Your task to perform on an android device: Clear the cart on bestbuy.com. Add bose soundlink to the cart on bestbuy.com Image 0: 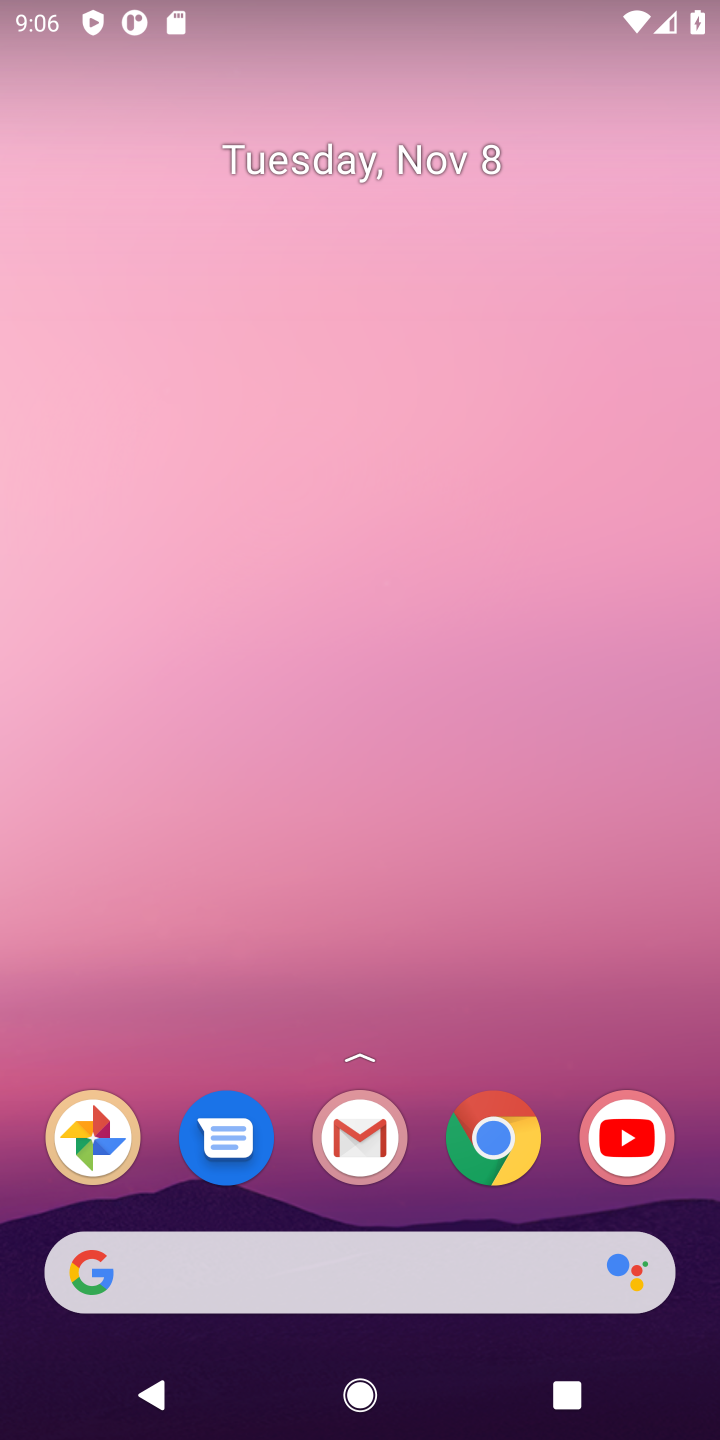
Step 0: click (526, 1138)
Your task to perform on an android device: Clear the cart on bestbuy.com. Add bose soundlink to the cart on bestbuy.com Image 1: 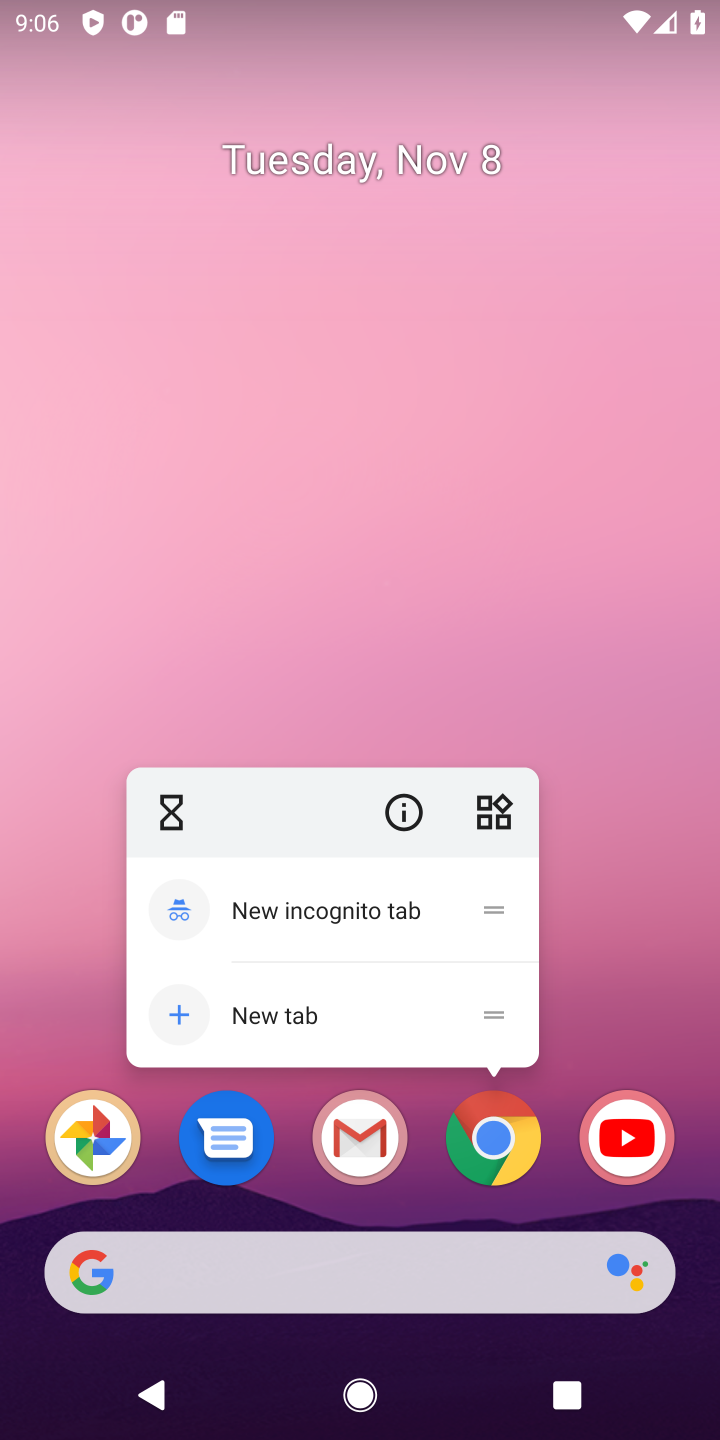
Step 1: click (488, 1151)
Your task to perform on an android device: Clear the cart on bestbuy.com. Add bose soundlink to the cart on bestbuy.com Image 2: 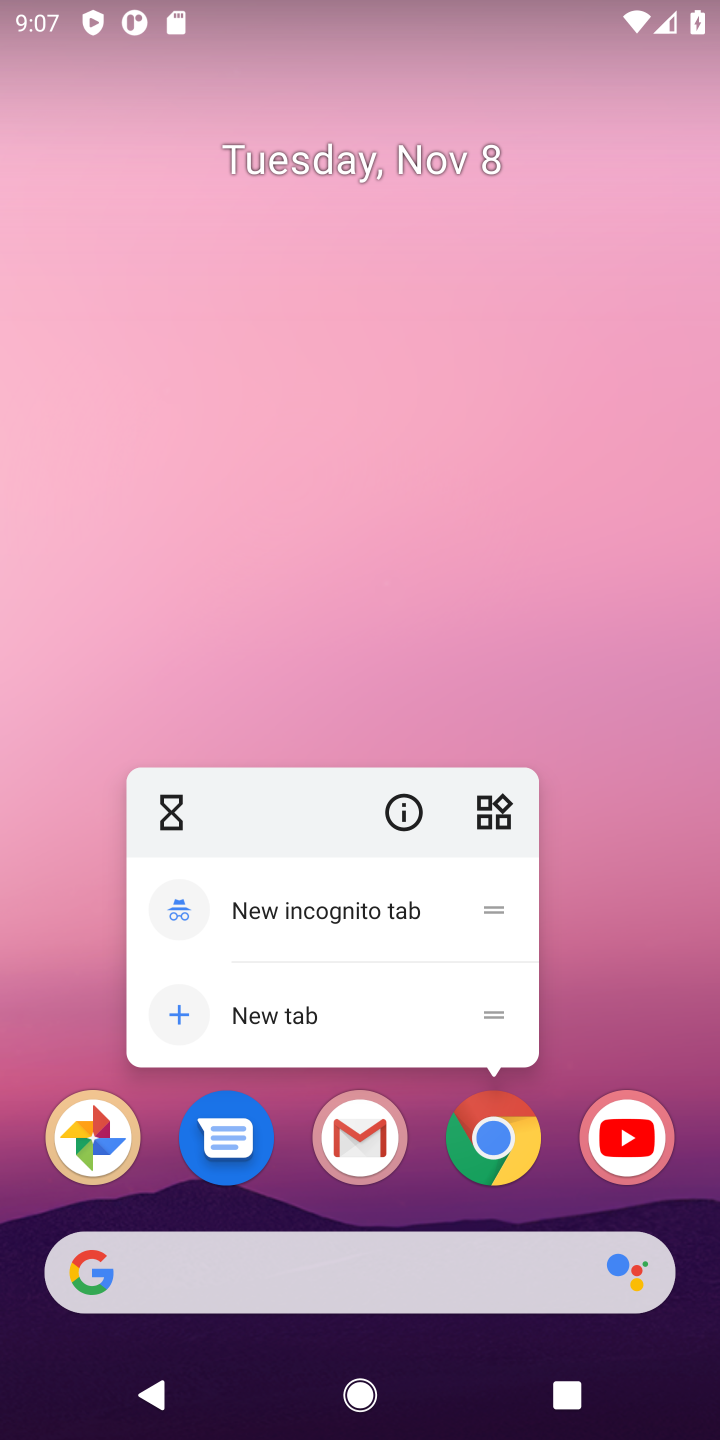
Step 2: click (500, 1126)
Your task to perform on an android device: Clear the cart on bestbuy.com. Add bose soundlink to the cart on bestbuy.com Image 3: 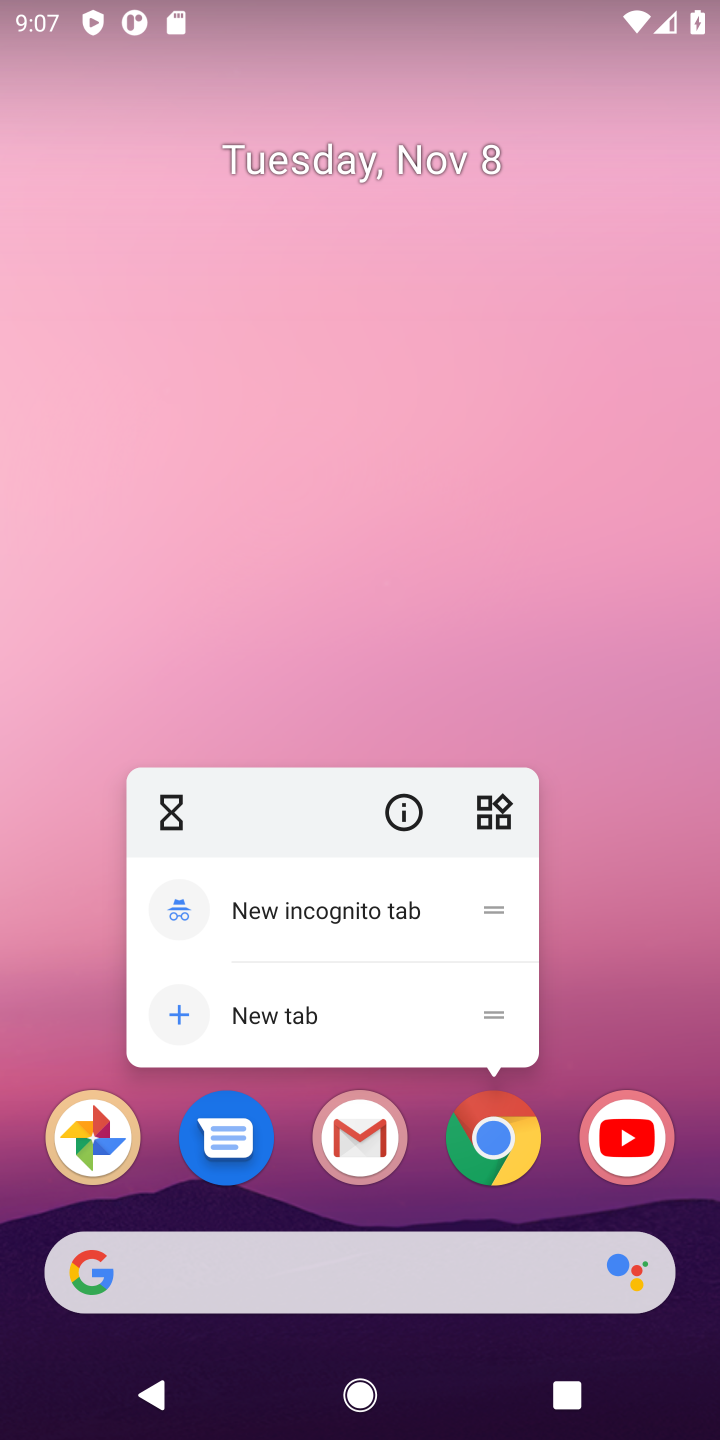
Step 3: click (500, 1126)
Your task to perform on an android device: Clear the cart on bestbuy.com. Add bose soundlink to the cart on bestbuy.com Image 4: 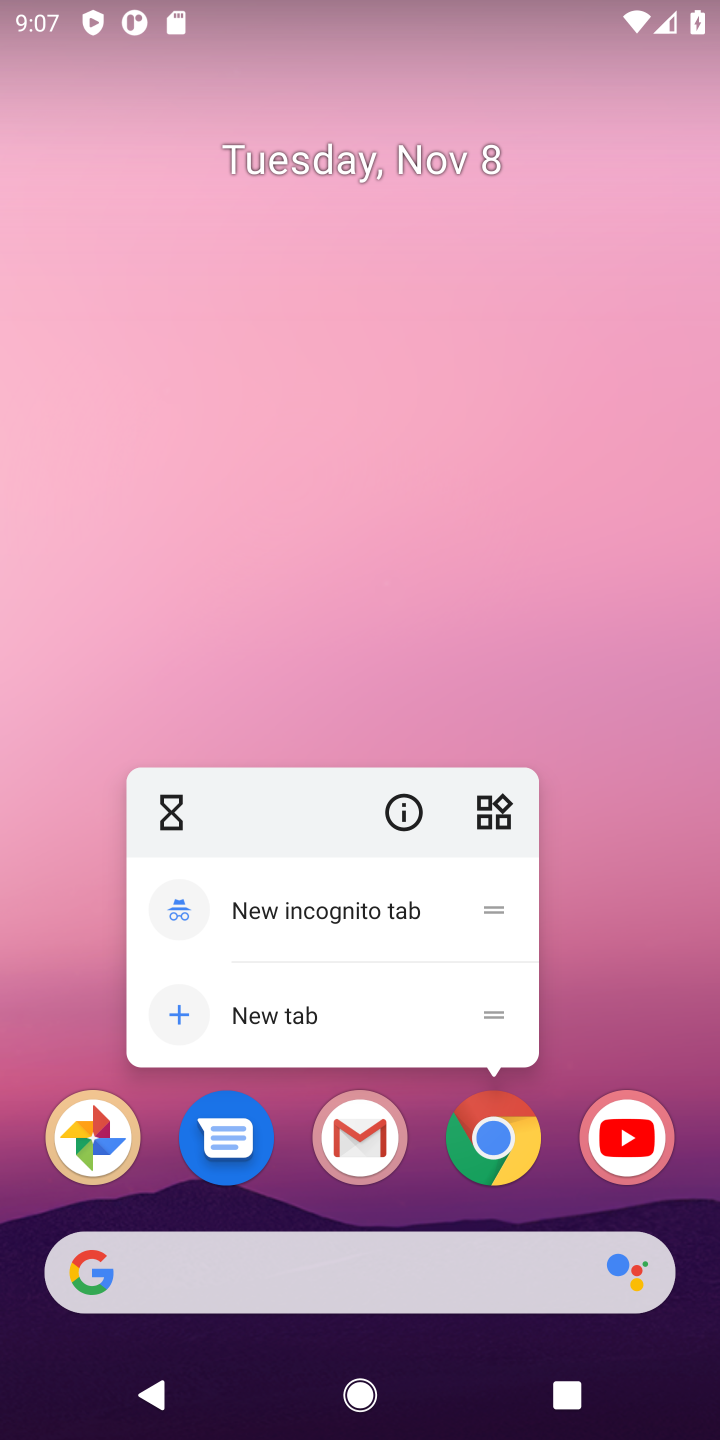
Step 4: click (500, 1144)
Your task to perform on an android device: Clear the cart on bestbuy.com. Add bose soundlink to the cart on bestbuy.com Image 5: 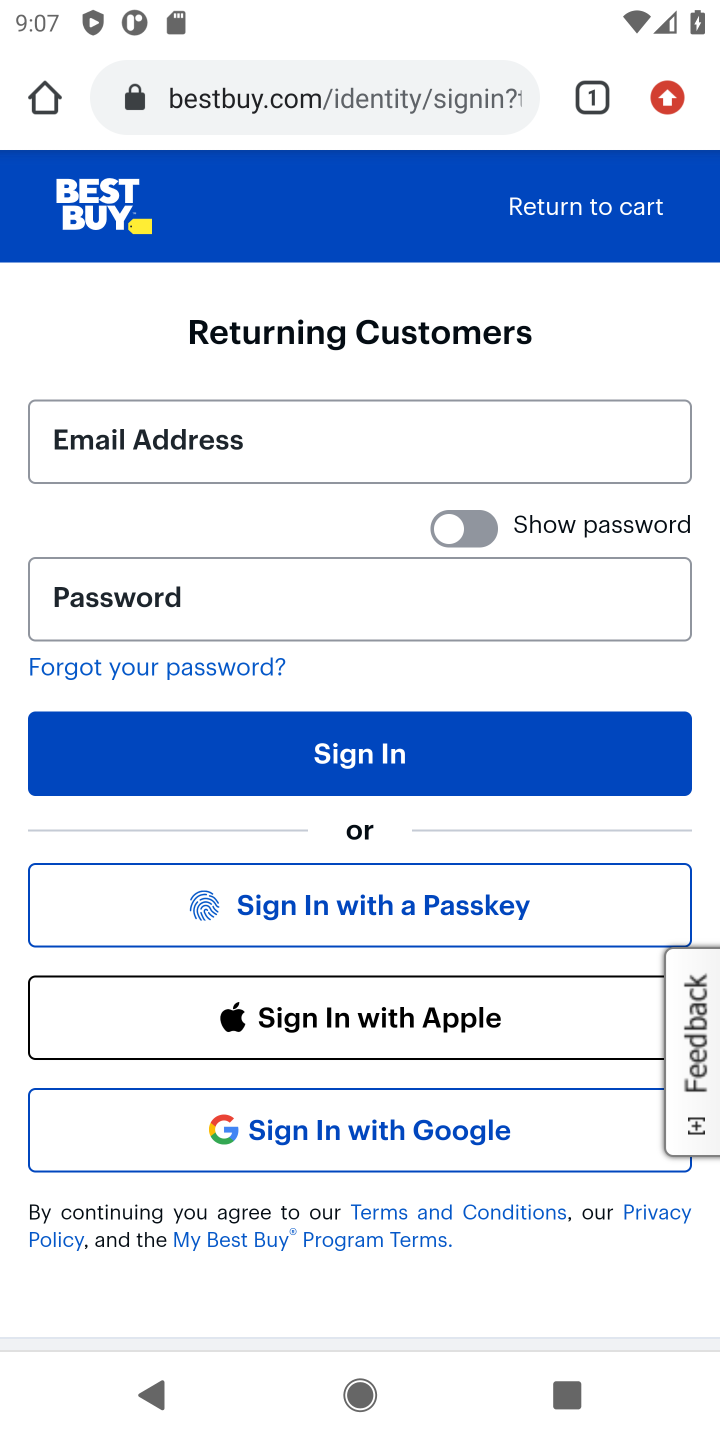
Step 5: press back button
Your task to perform on an android device: Clear the cart on bestbuy.com. Add bose soundlink to the cart on bestbuy.com Image 6: 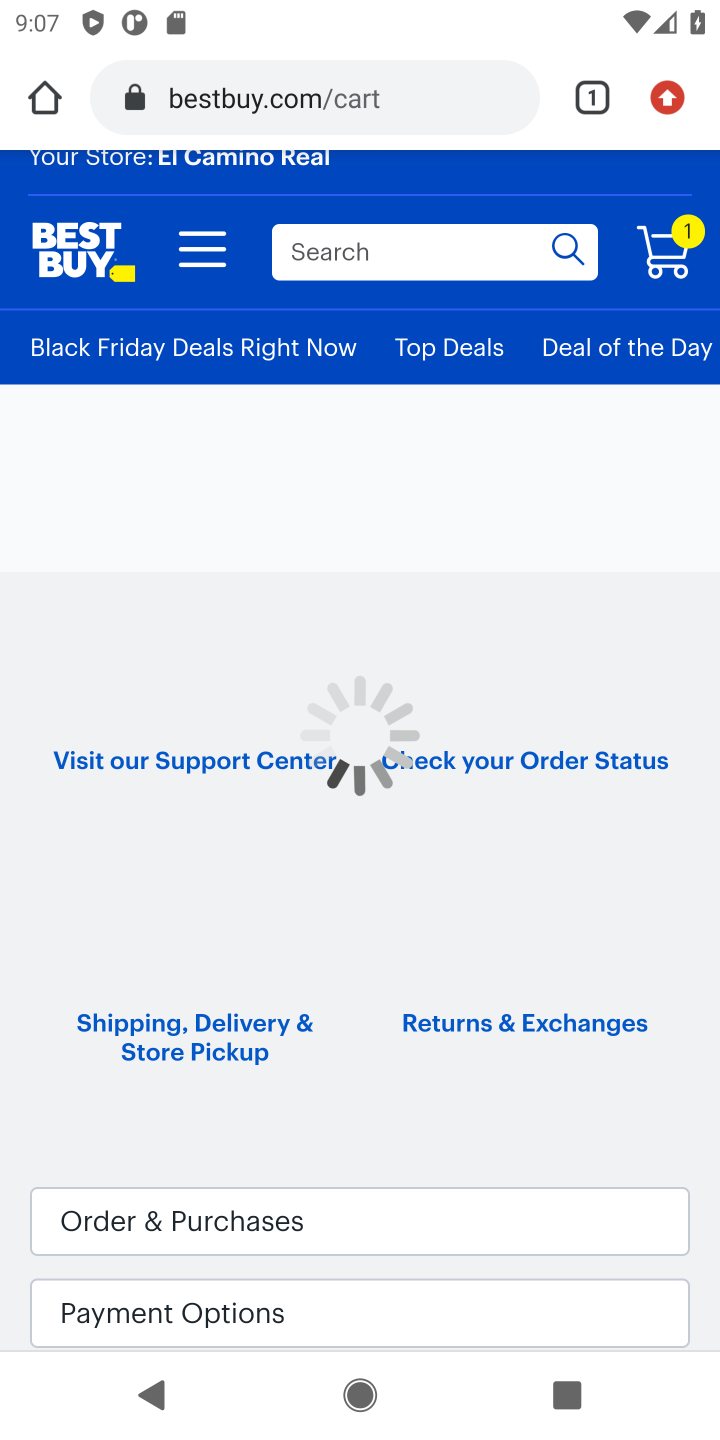
Step 6: click (394, 262)
Your task to perform on an android device: Clear the cart on bestbuy.com. Add bose soundlink to the cart on bestbuy.com Image 7: 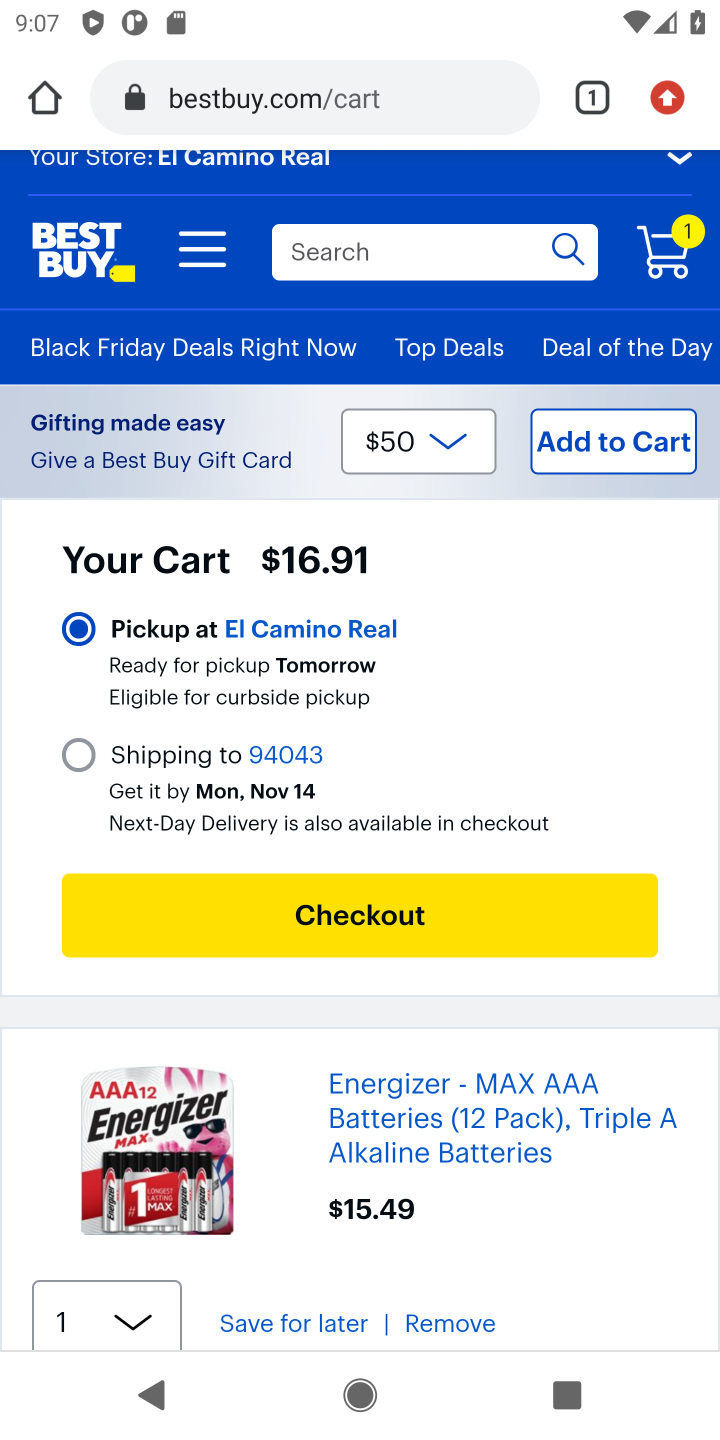
Step 7: click (358, 233)
Your task to perform on an android device: Clear the cart on bestbuy.com. Add bose soundlink to the cart on bestbuy.com Image 8: 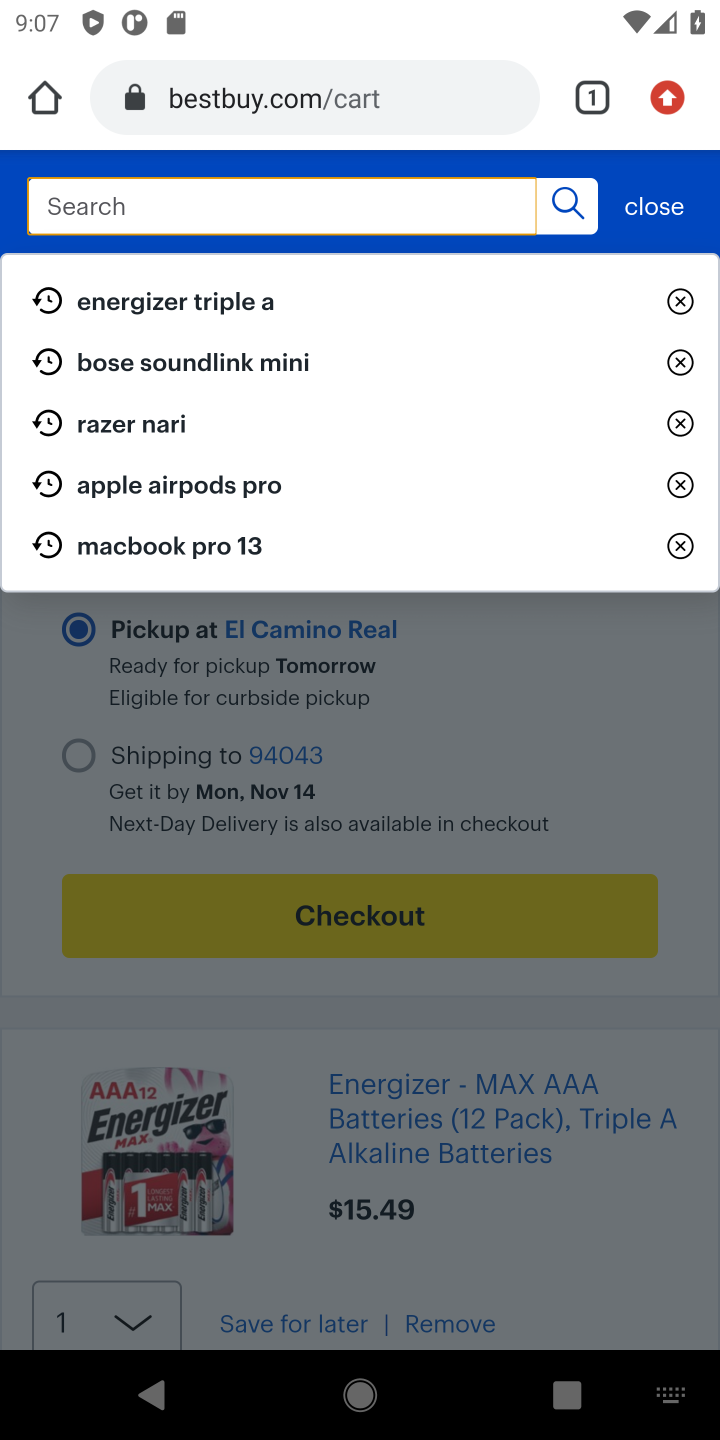
Step 8: type "bose soundlink"
Your task to perform on an android device: Clear the cart on bestbuy.com. Add bose soundlink to the cart on bestbuy.com Image 9: 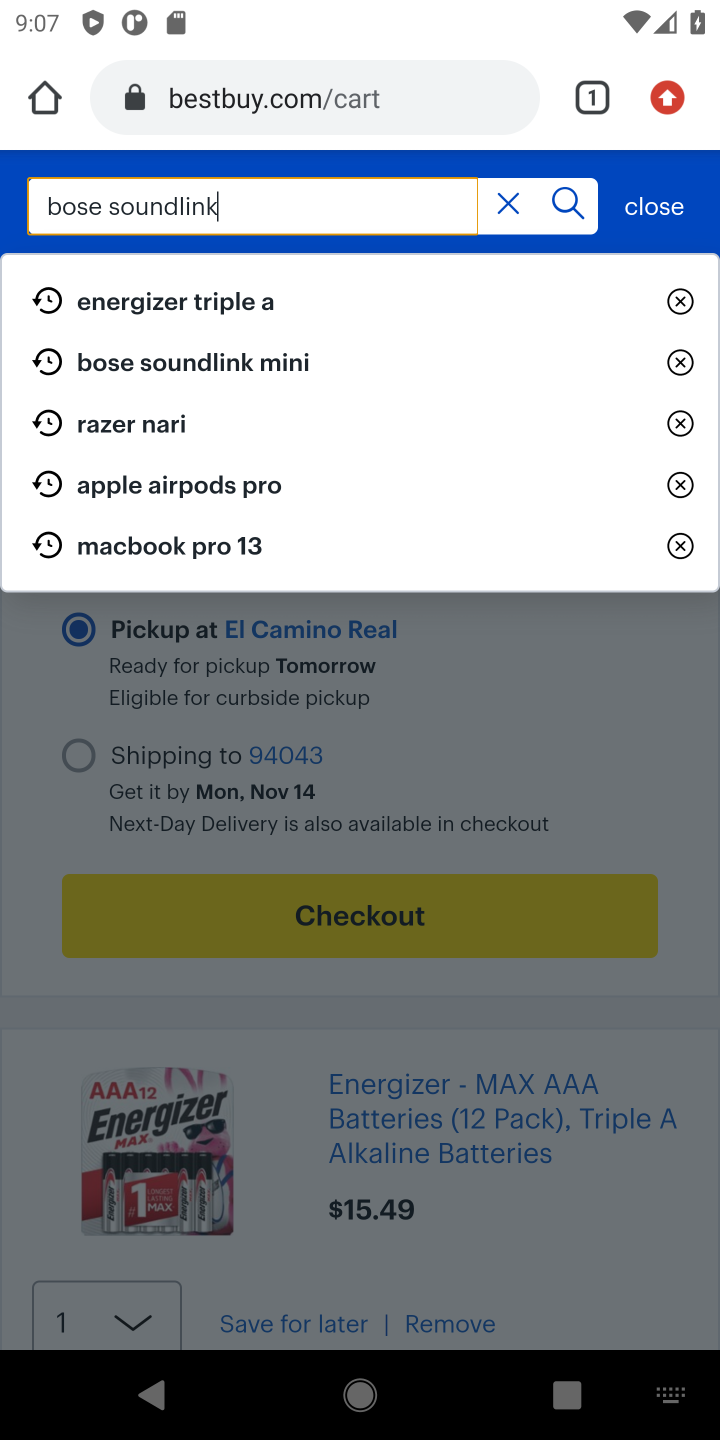
Step 9: press enter
Your task to perform on an android device: Clear the cart on bestbuy.com. Add bose soundlink to the cart on bestbuy.com Image 10: 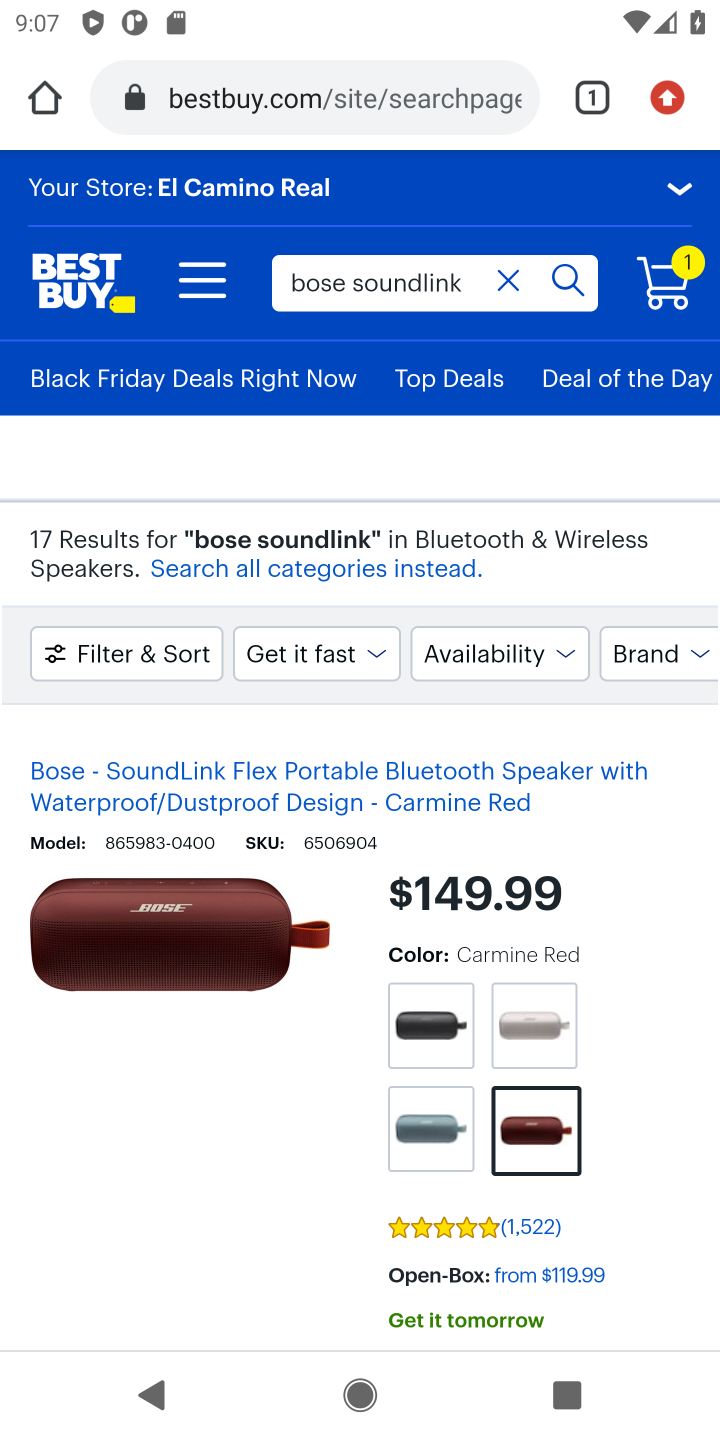
Step 10: drag from (332, 1210) to (576, 582)
Your task to perform on an android device: Clear the cart on bestbuy.com. Add bose soundlink to the cart on bestbuy.com Image 11: 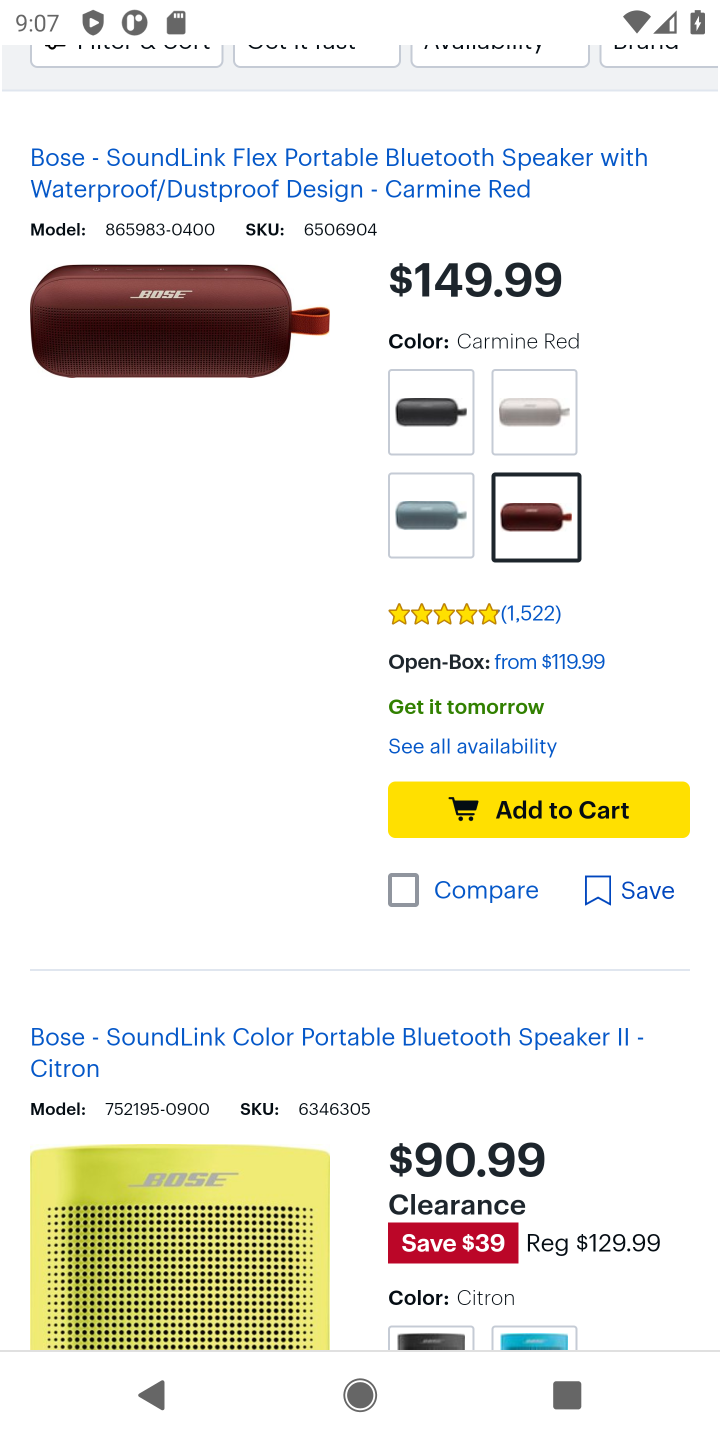
Step 11: click (586, 790)
Your task to perform on an android device: Clear the cart on bestbuy.com. Add bose soundlink to the cart on bestbuy.com Image 12: 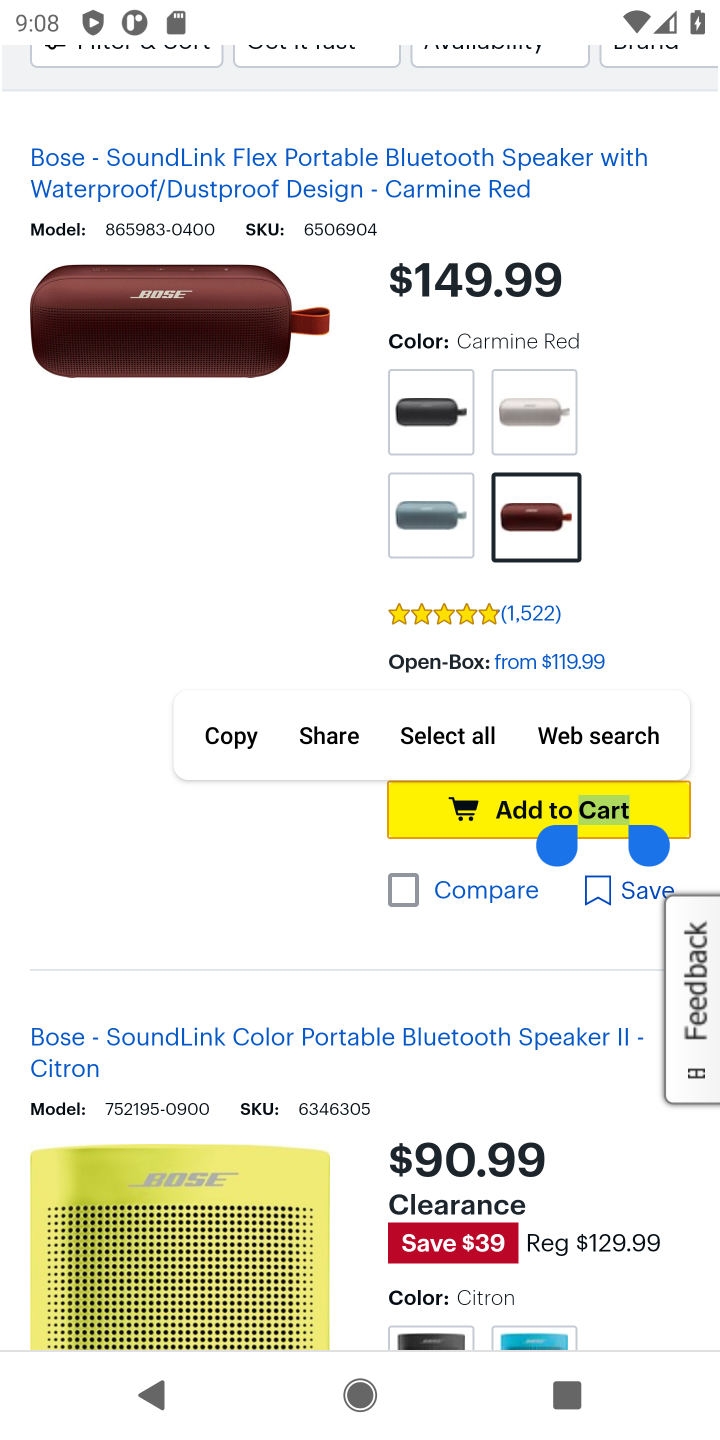
Step 12: click (545, 801)
Your task to perform on an android device: Clear the cart on bestbuy.com. Add bose soundlink to the cart on bestbuy.com Image 13: 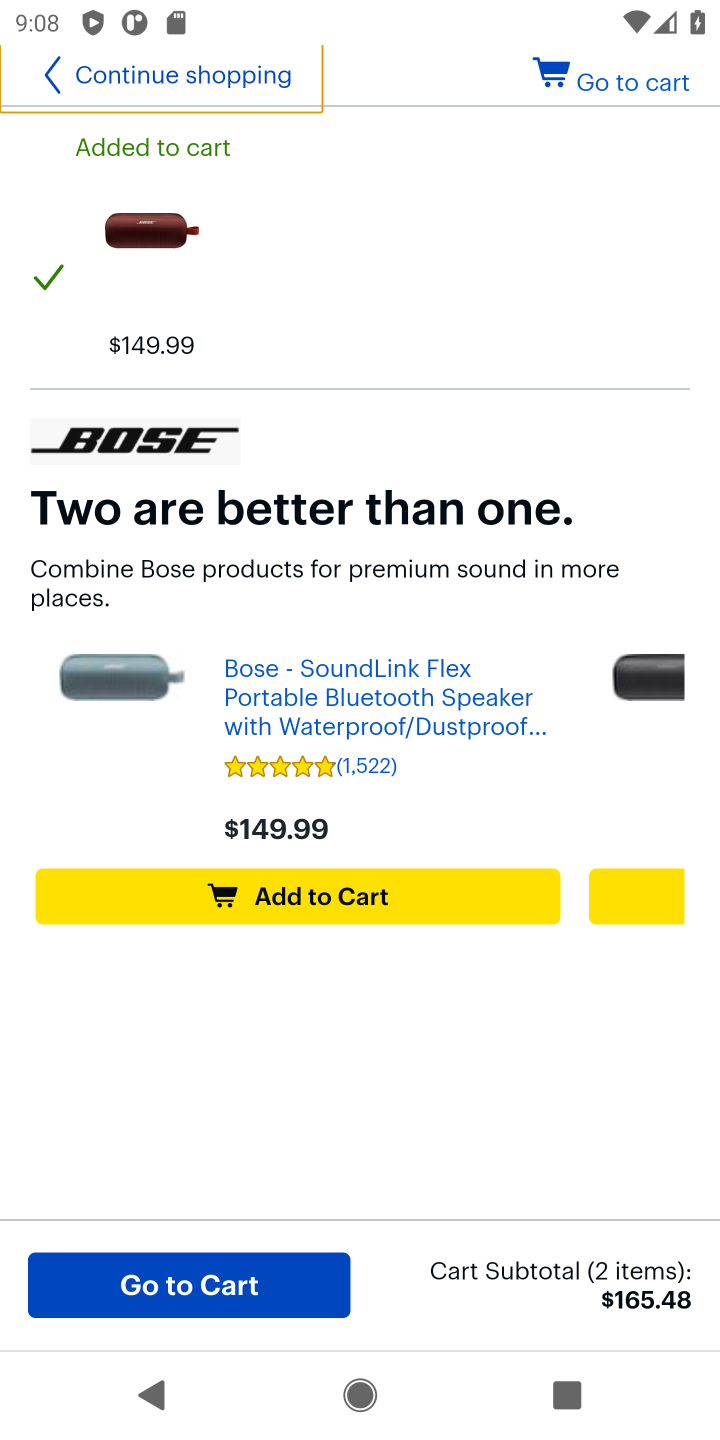
Step 13: click (652, 80)
Your task to perform on an android device: Clear the cart on bestbuy.com. Add bose soundlink to the cart on bestbuy.com Image 14: 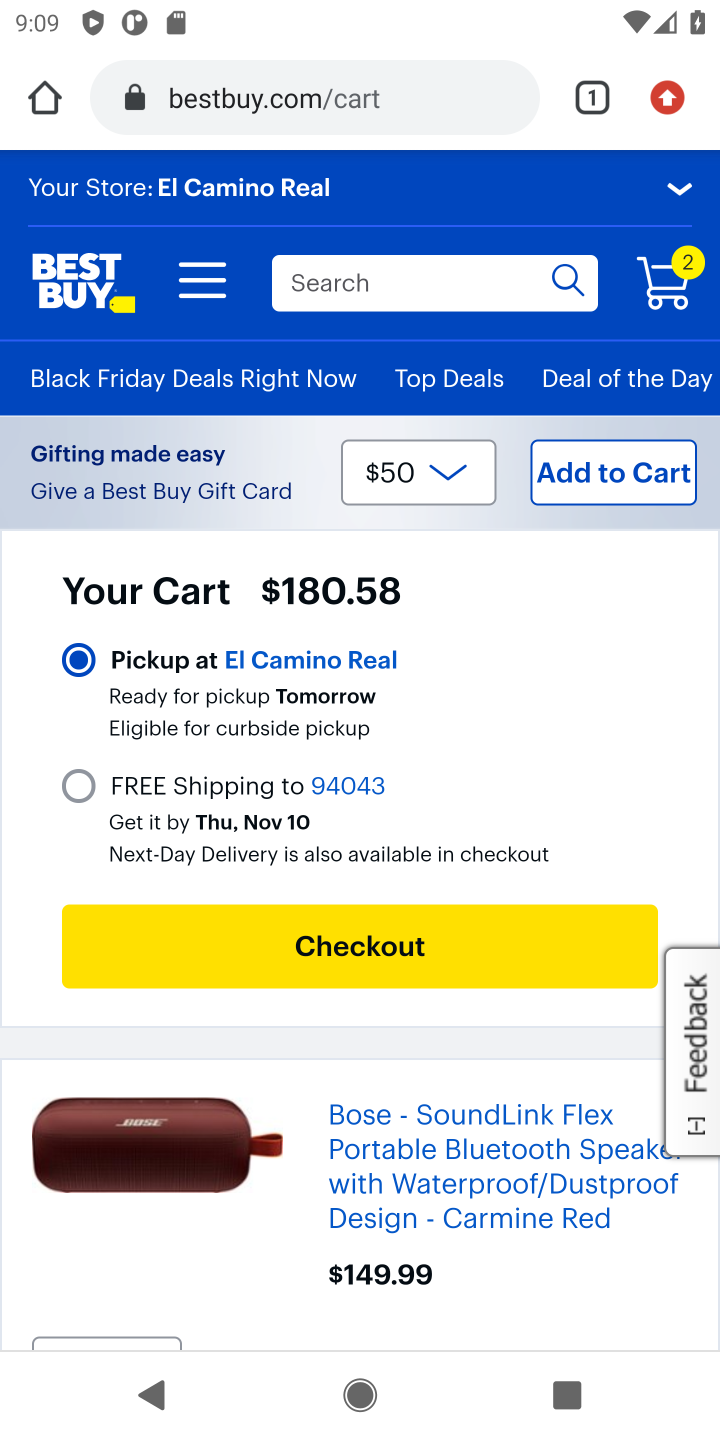
Step 14: task complete